Your task to perform on an android device: turn off location Image 0: 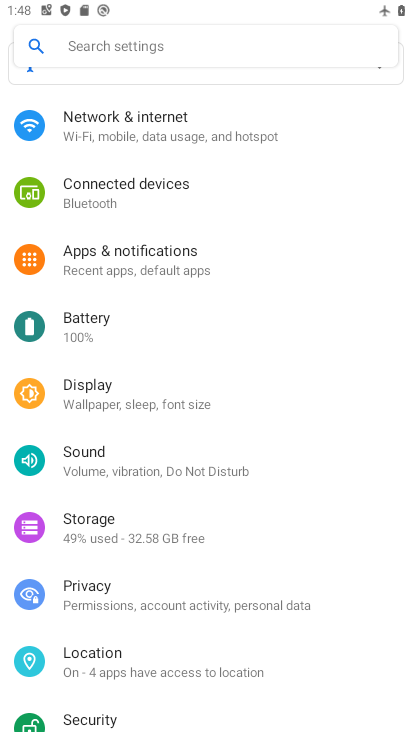
Step 0: click (126, 643)
Your task to perform on an android device: turn off location Image 1: 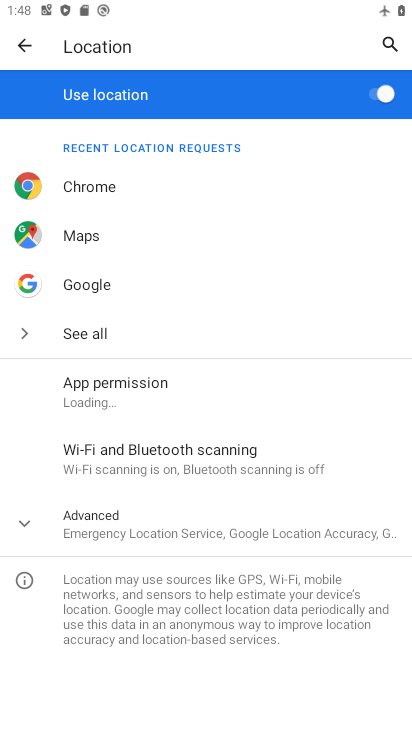
Step 1: click (372, 94)
Your task to perform on an android device: turn off location Image 2: 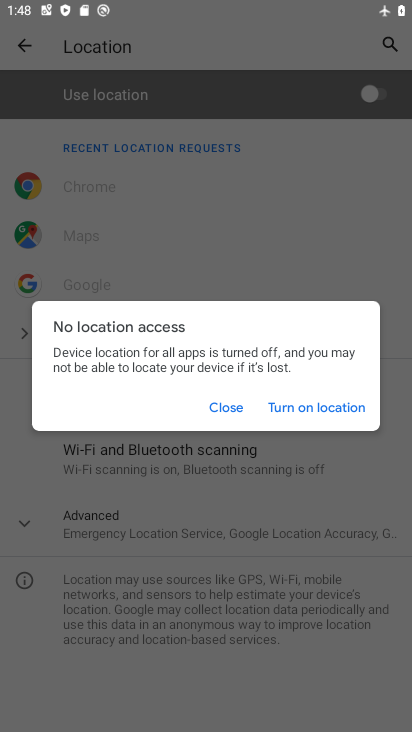
Step 2: click (241, 407)
Your task to perform on an android device: turn off location Image 3: 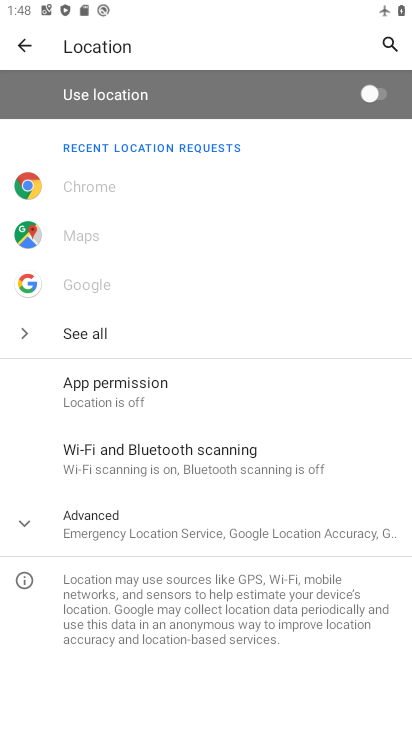
Step 3: task complete